Your task to perform on an android device: toggle show notifications on the lock screen Image 0: 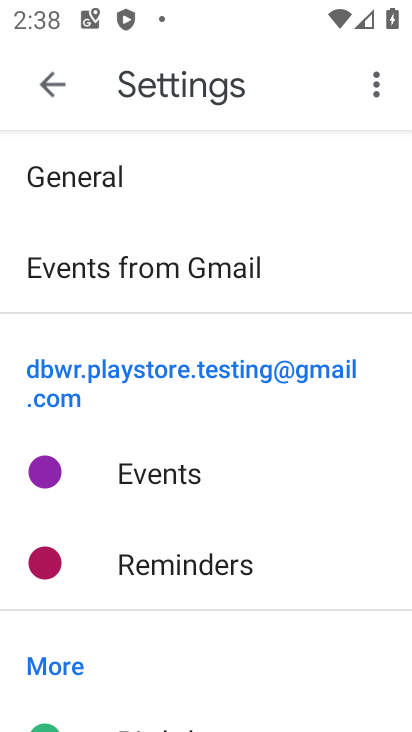
Step 0: press home button
Your task to perform on an android device: toggle show notifications on the lock screen Image 1: 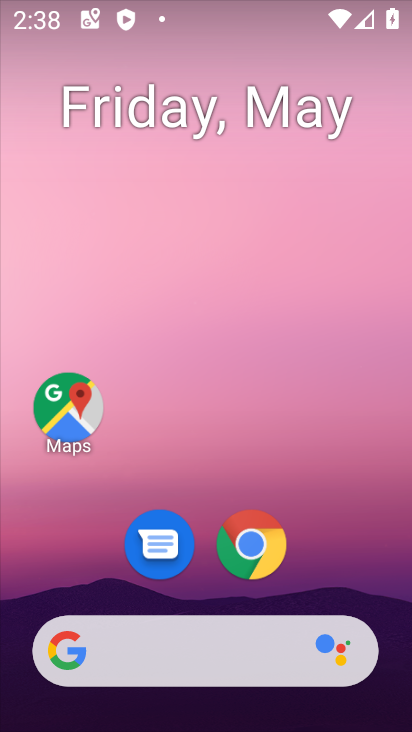
Step 1: drag from (207, 583) to (254, 277)
Your task to perform on an android device: toggle show notifications on the lock screen Image 2: 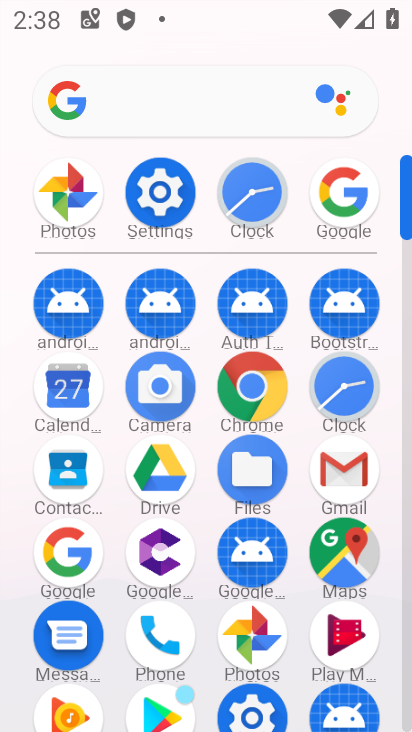
Step 2: click (164, 196)
Your task to perform on an android device: toggle show notifications on the lock screen Image 3: 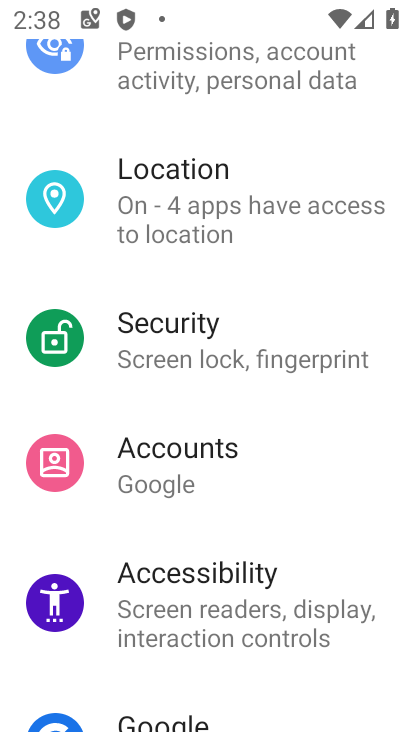
Step 3: drag from (247, 194) to (257, 431)
Your task to perform on an android device: toggle show notifications on the lock screen Image 4: 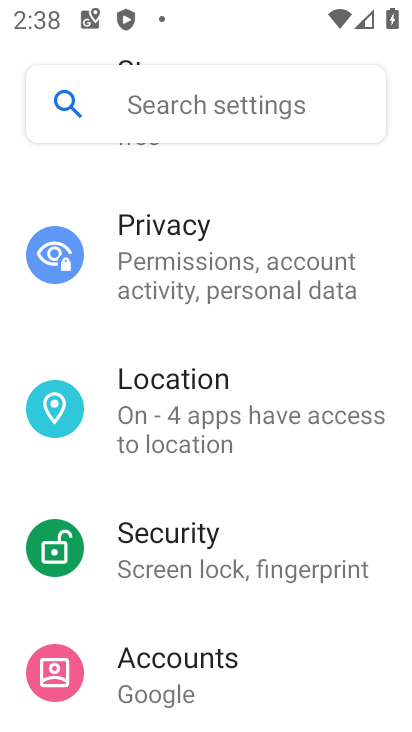
Step 4: drag from (234, 224) to (231, 498)
Your task to perform on an android device: toggle show notifications on the lock screen Image 5: 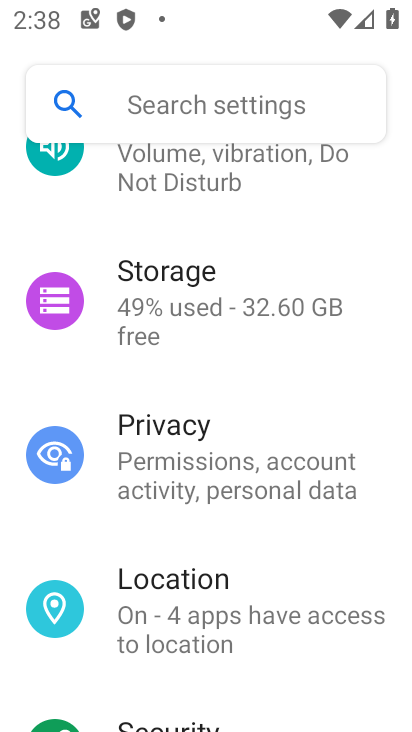
Step 5: drag from (254, 202) to (254, 519)
Your task to perform on an android device: toggle show notifications on the lock screen Image 6: 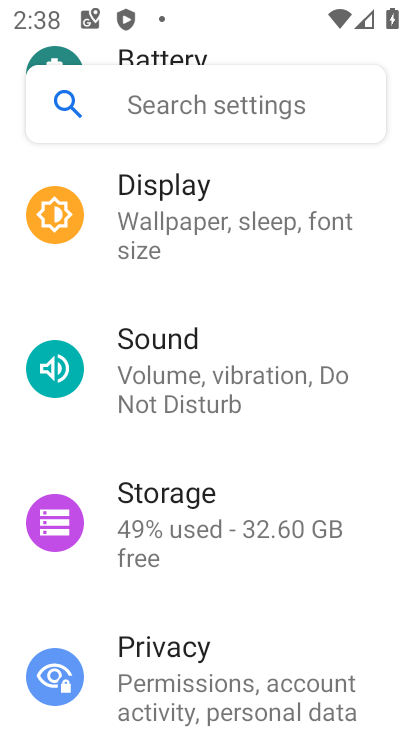
Step 6: drag from (246, 220) to (246, 490)
Your task to perform on an android device: toggle show notifications on the lock screen Image 7: 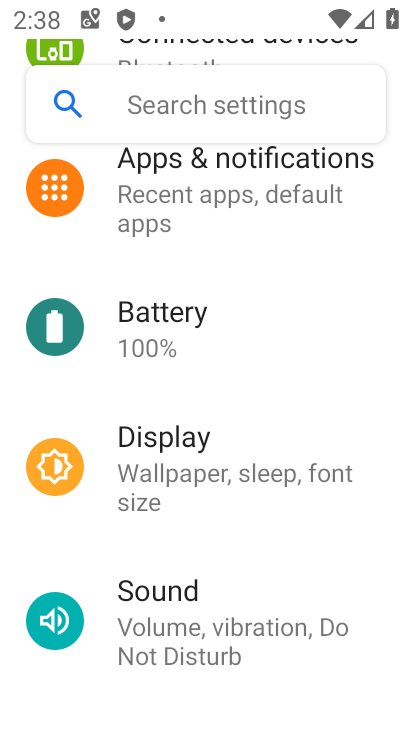
Step 7: click (228, 188)
Your task to perform on an android device: toggle show notifications on the lock screen Image 8: 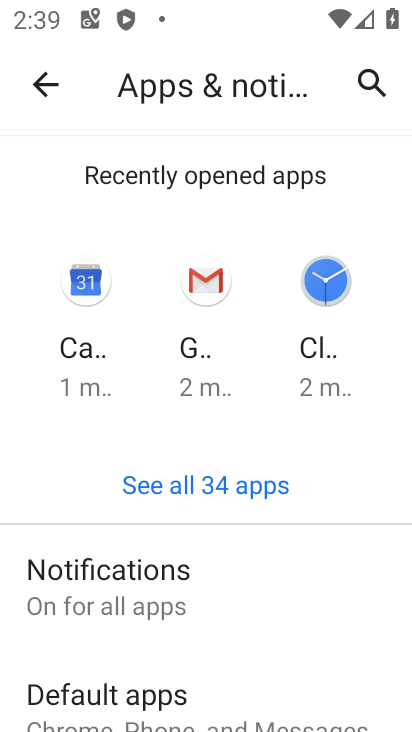
Step 8: click (205, 580)
Your task to perform on an android device: toggle show notifications on the lock screen Image 9: 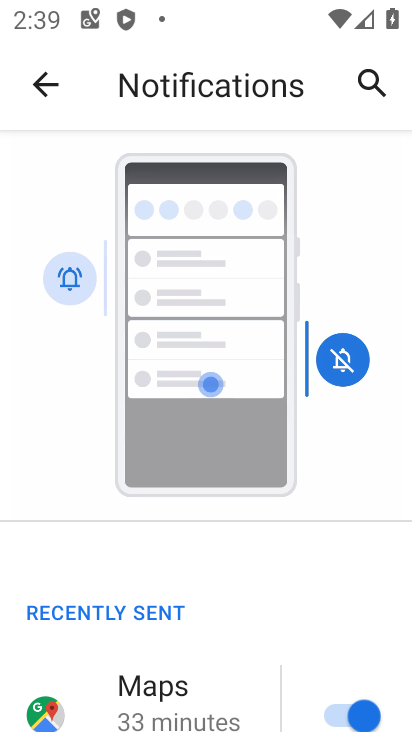
Step 9: drag from (161, 640) to (180, 348)
Your task to perform on an android device: toggle show notifications on the lock screen Image 10: 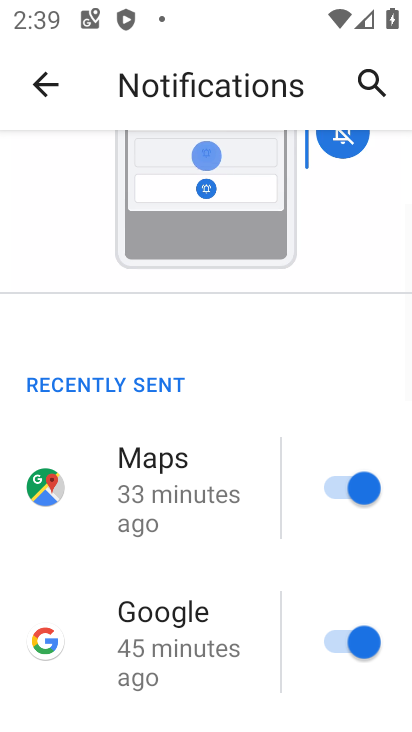
Step 10: drag from (211, 584) to (213, 336)
Your task to perform on an android device: toggle show notifications on the lock screen Image 11: 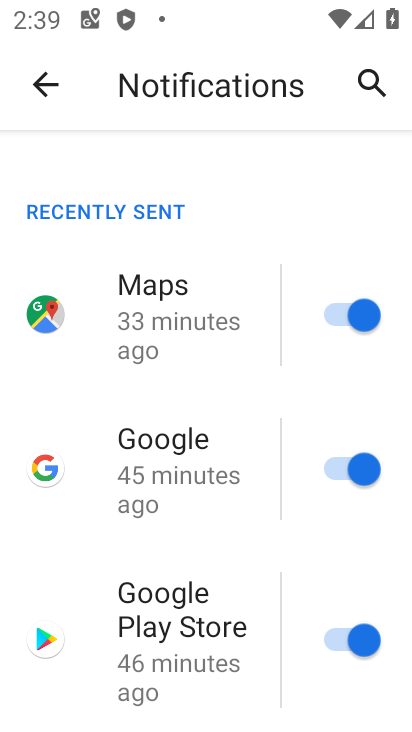
Step 11: drag from (217, 572) to (227, 306)
Your task to perform on an android device: toggle show notifications on the lock screen Image 12: 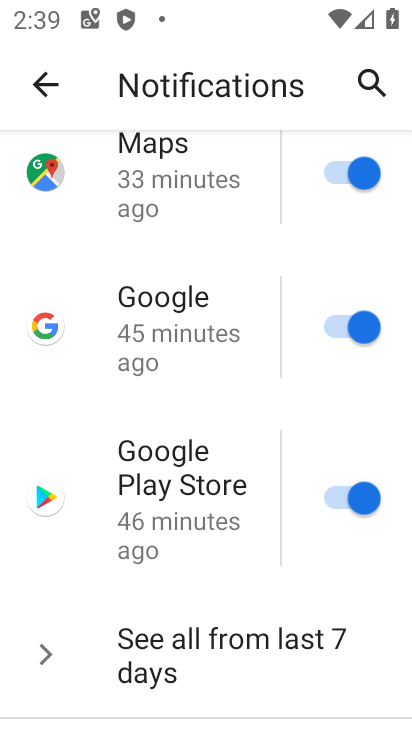
Step 12: drag from (268, 589) to (264, 267)
Your task to perform on an android device: toggle show notifications on the lock screen Image 13: 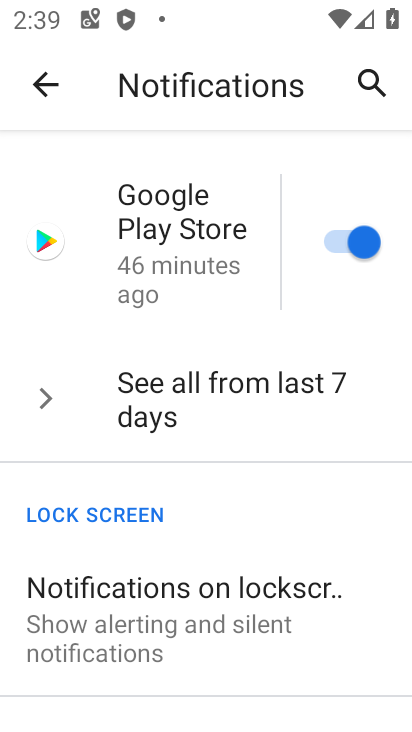
Step 13: click (227, 604)
Your task to perform on an android device: toggle show notifications on the lock screen Image 14: 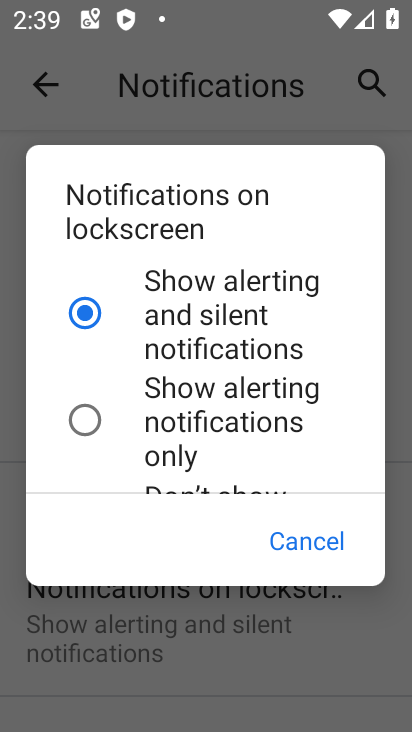
Step 14: drag from (207, 446) to (247, 278)
Your task to perform on an android device: toggle show notifications on the lock screen Image 15: 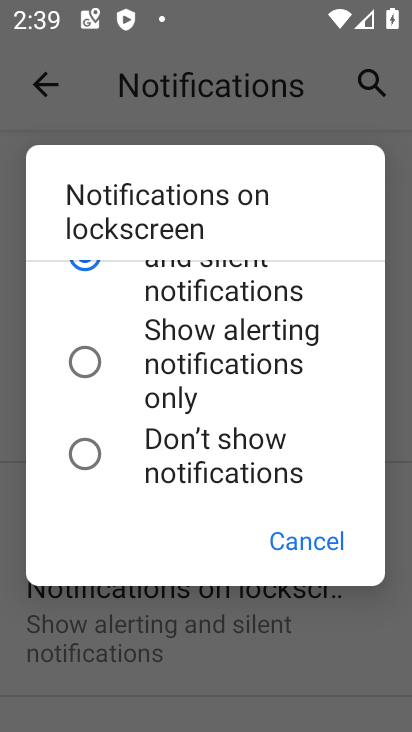
Step 15: click (190, 439)
Your task to perform on an android device: toggle show notifications on the lock screen Image 16: 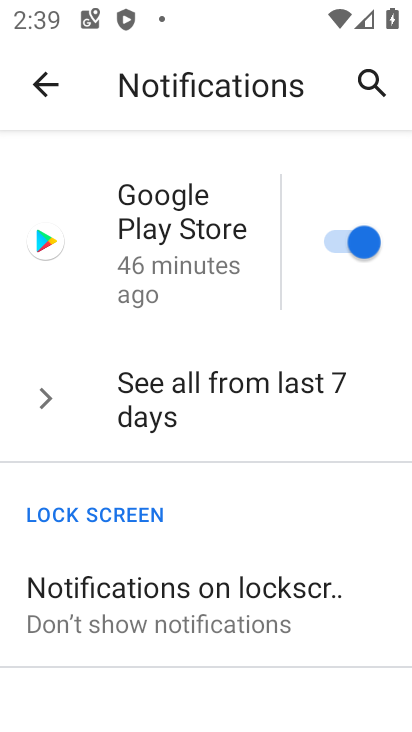
Step 16: task complete